Your task to perform on an android device: turn off smart reply in the gmail app Image 0: 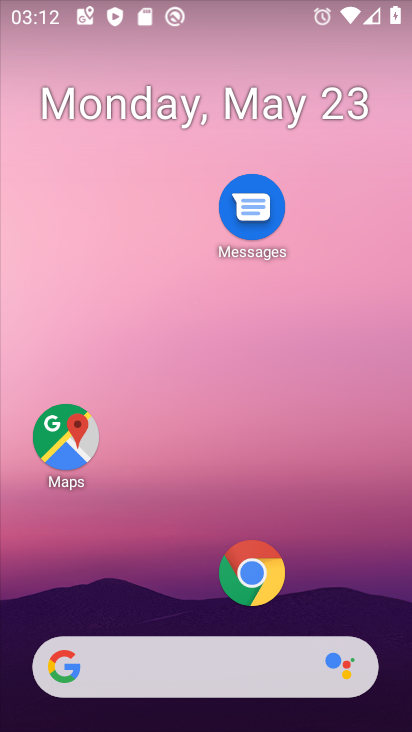
Step 0: drag from (331, 660) to (363, 24)
Your task to perform on an android device: turn off smart reply in the gmail app Image 1: 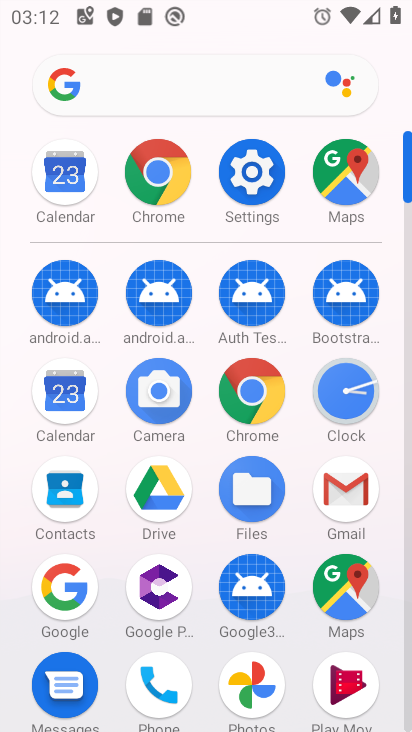
Step 1: click (360, 490)
Your task to perform on an android device: turn off smart reply in the gmail app Image 2: 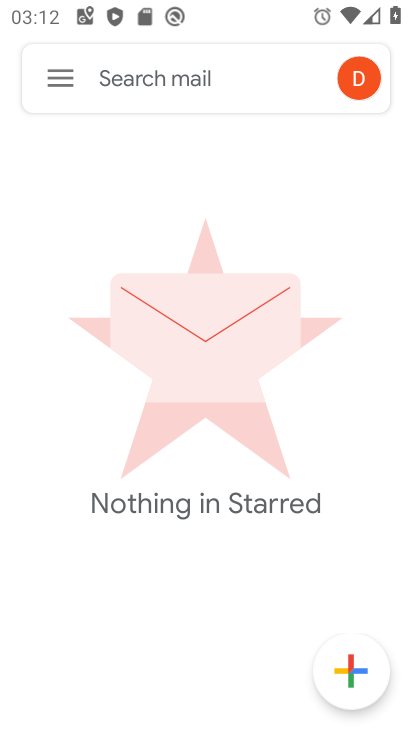
Step 2: click (60, 72)
Your task to perform on an android device: turn off smart reply in the gmail app Image 3: 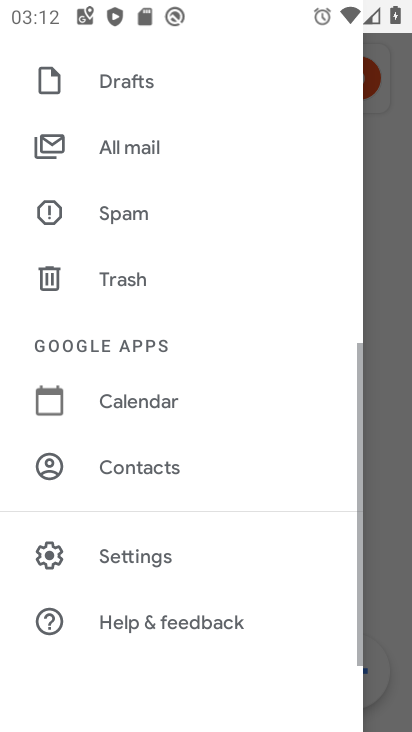
Step 3: click (153, 550)
Your task to perform on an android device: turn off smart reply in the gmail app Image 4: 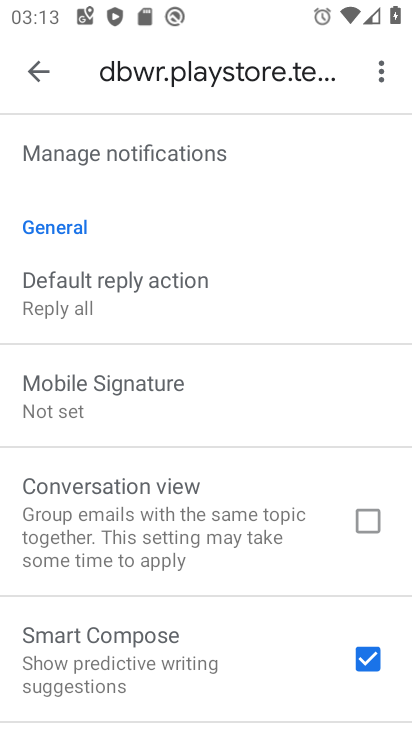
Step 4: task complete